Your task to perform on an android device: Search for razer naga on costco, select the first entry, and add it to the cart. Image 0: 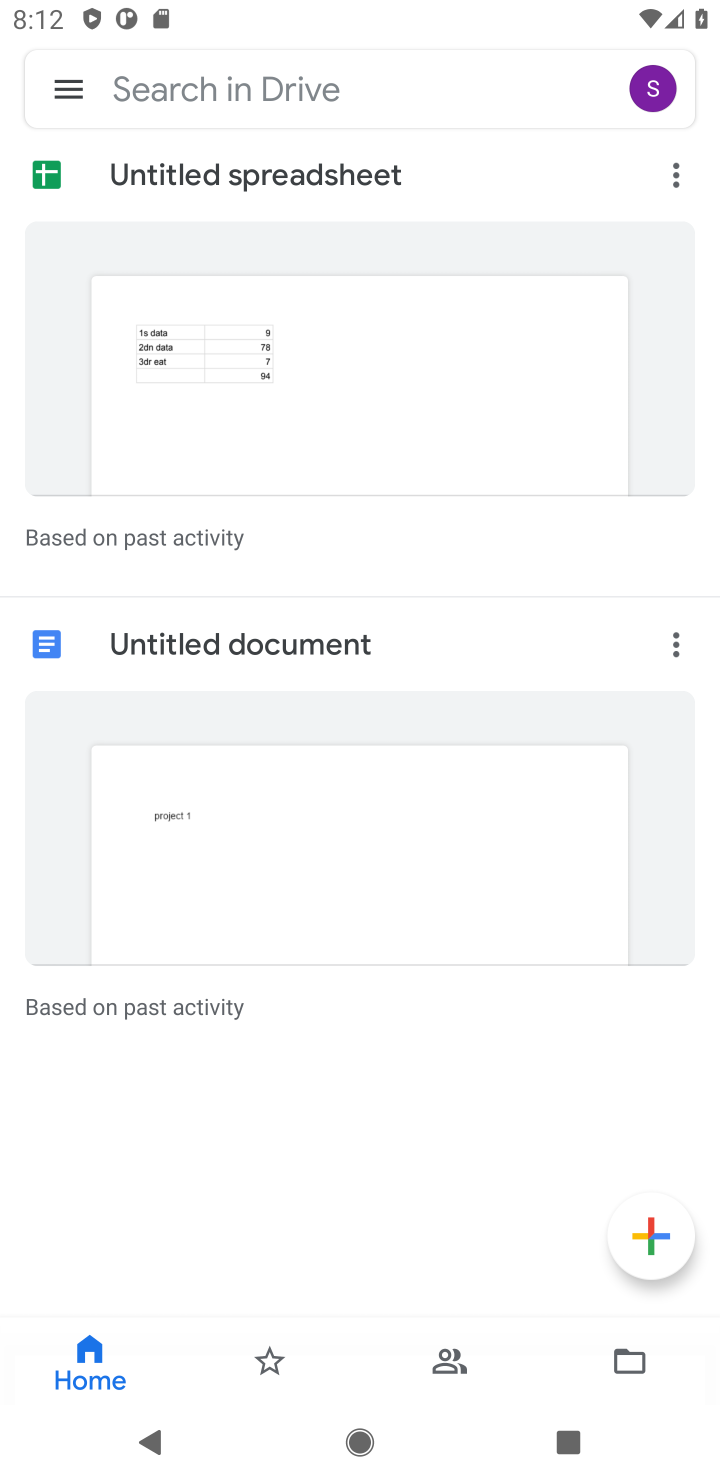
Step 0: press home button
Your task to perform on an android device: Search for razer naga on costco, select the first entry, and add it to the cart. Image 1: 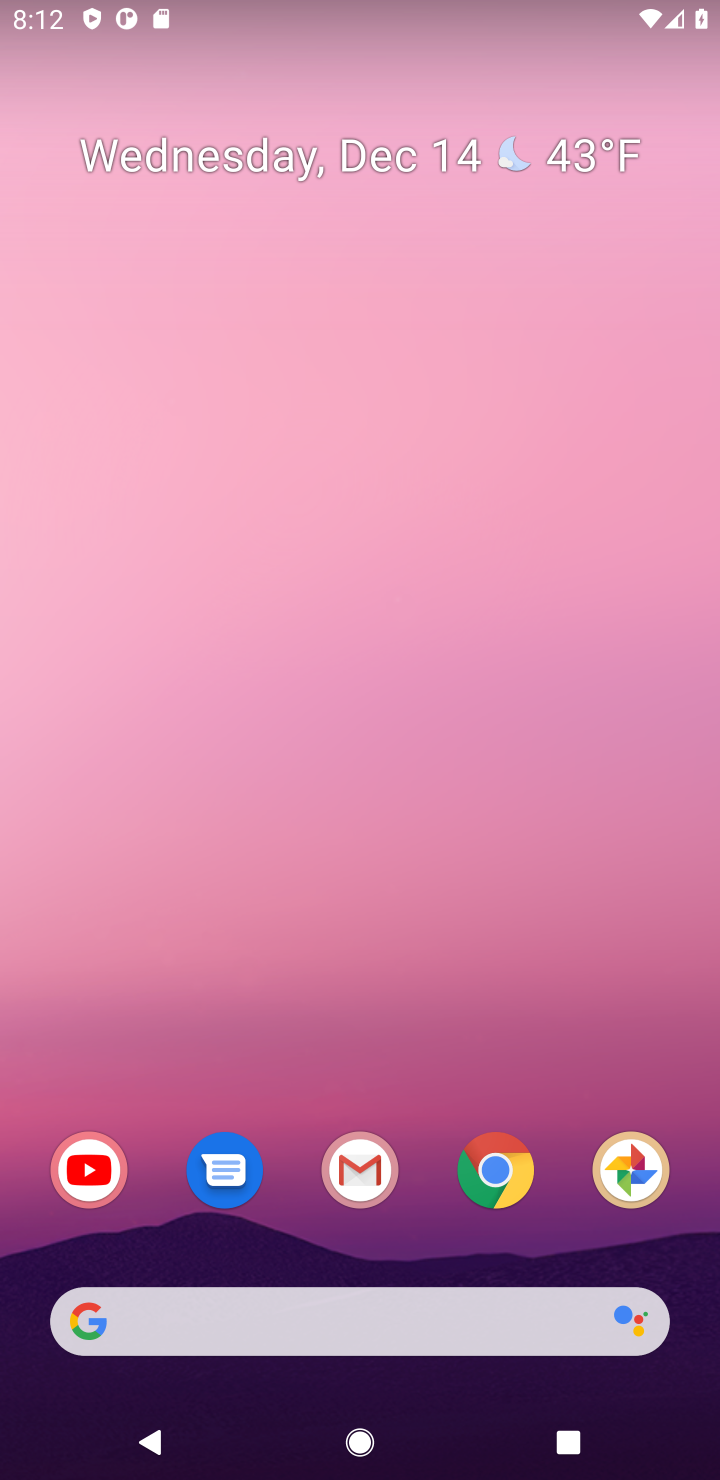
Step 1: click (486, 1174)
Your task to perform on an android device: Search for razer naga on costco, select the first entry, and add it to the cart. Image 2: 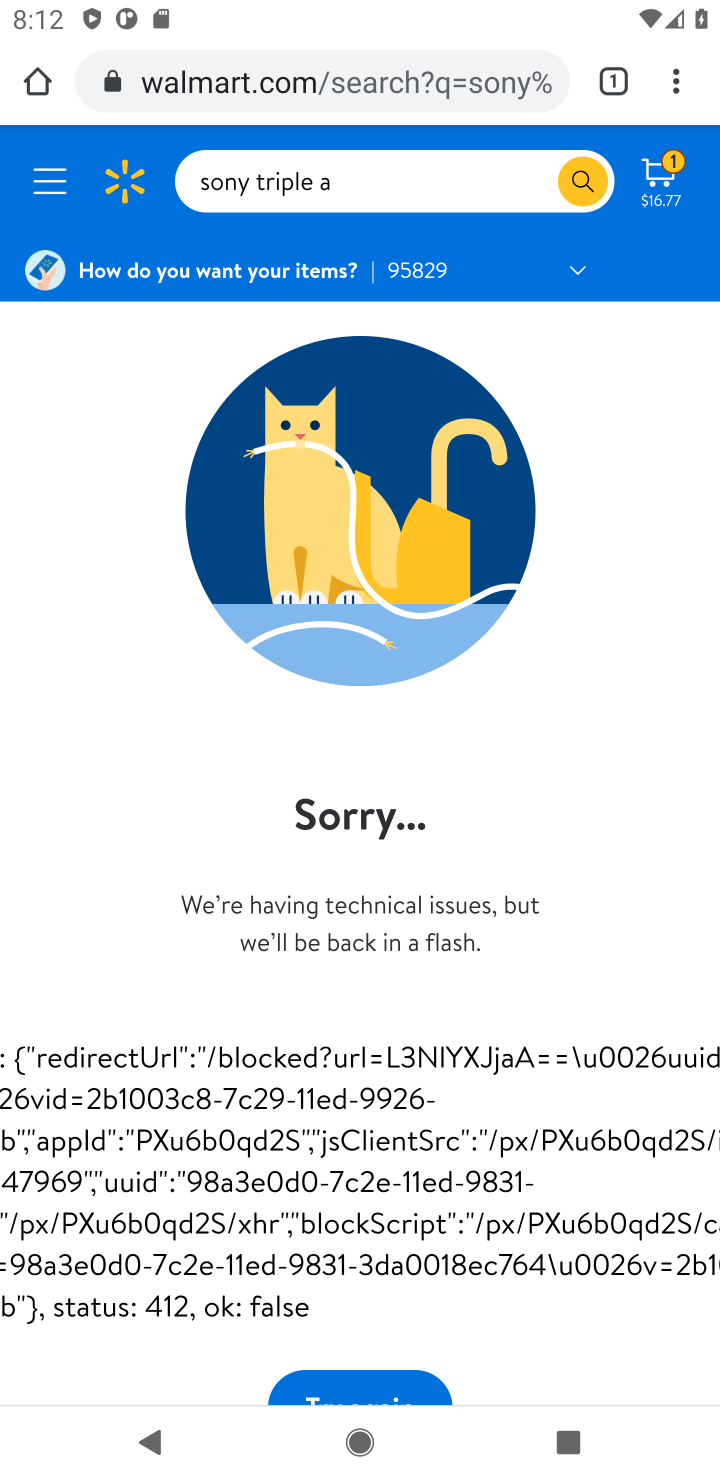
Step 2: click (338, 72)
Your task to perform on an android device: Search for razer naga on costco, select the first entry, and add it to the cart. Image 3: 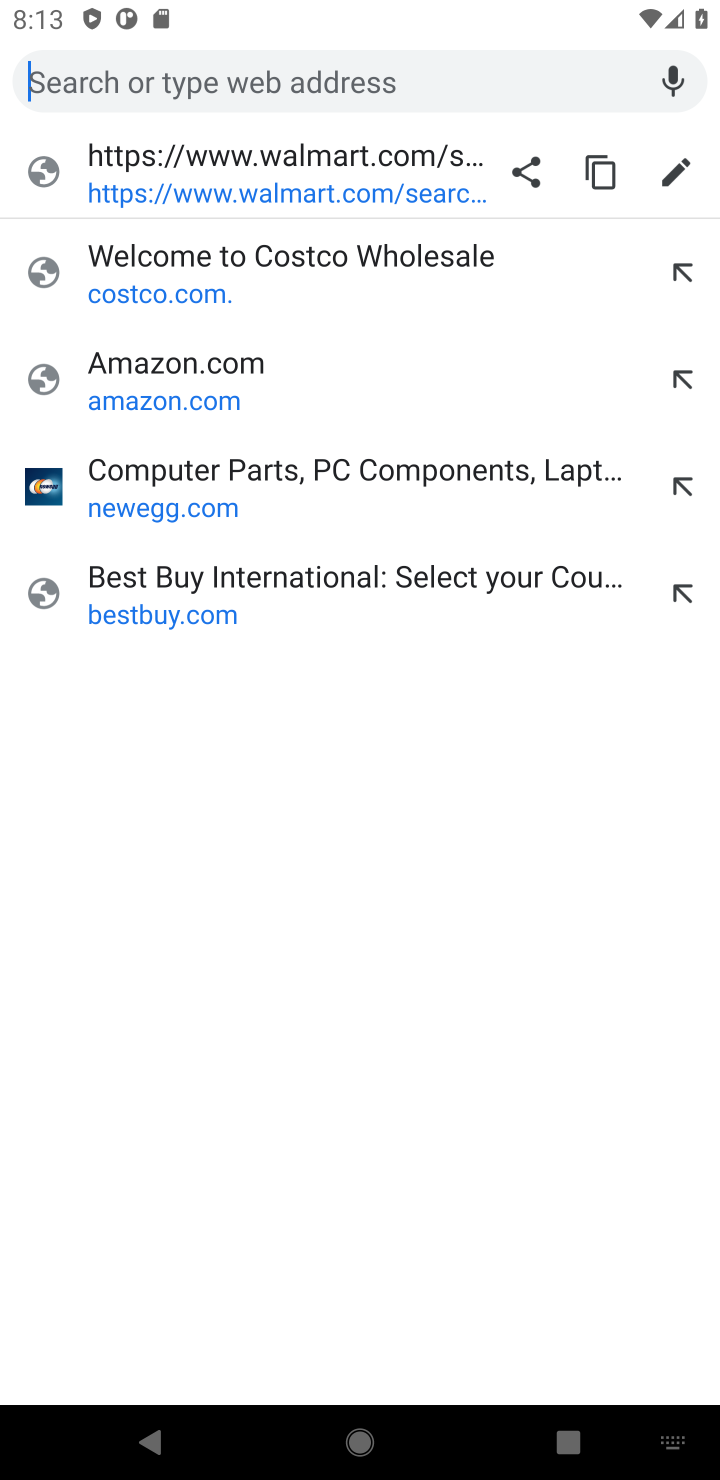
Step 3: click (425, 262)
Your task to perform on an android device: Search for razer naga on costco, select the first entry, and add it to the cart. Image 4: 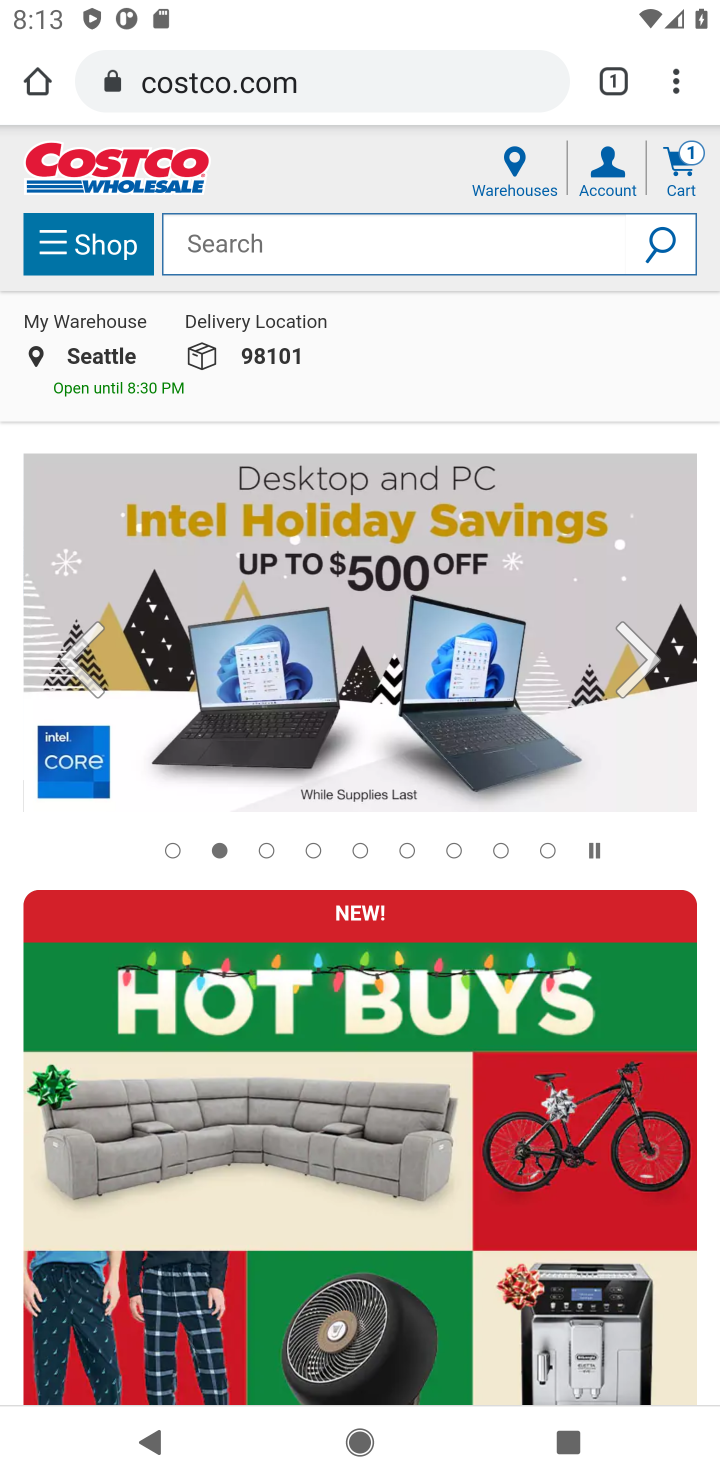
Step 4: click (425, 262)
Your task to perform on an android device: Search for razer naga on costco, select the first entry, and add it to the cart. Image 5: 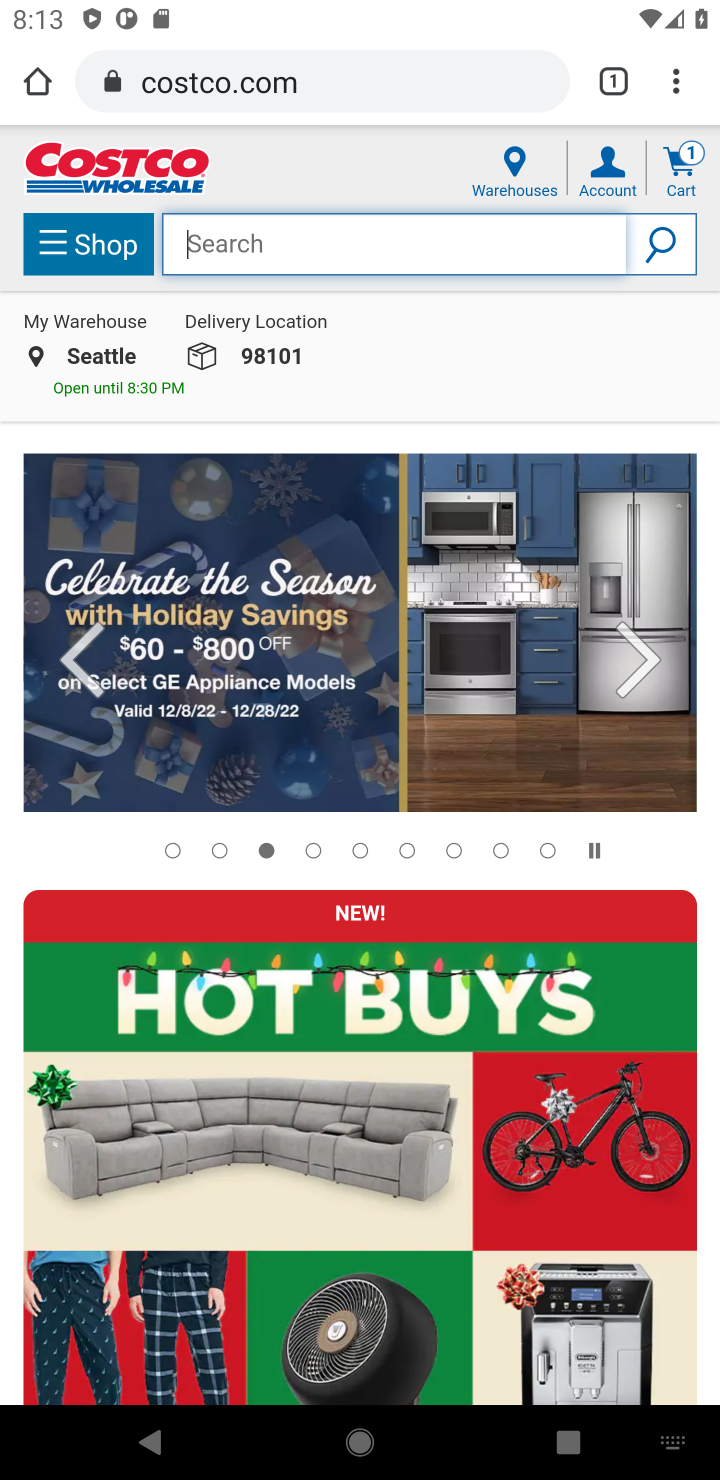
Step 5: type "RAZER NAGA"
Your task to perform on an android device: Search for razer naga on costco, select the first entry, and add it to the cart. Image 6: 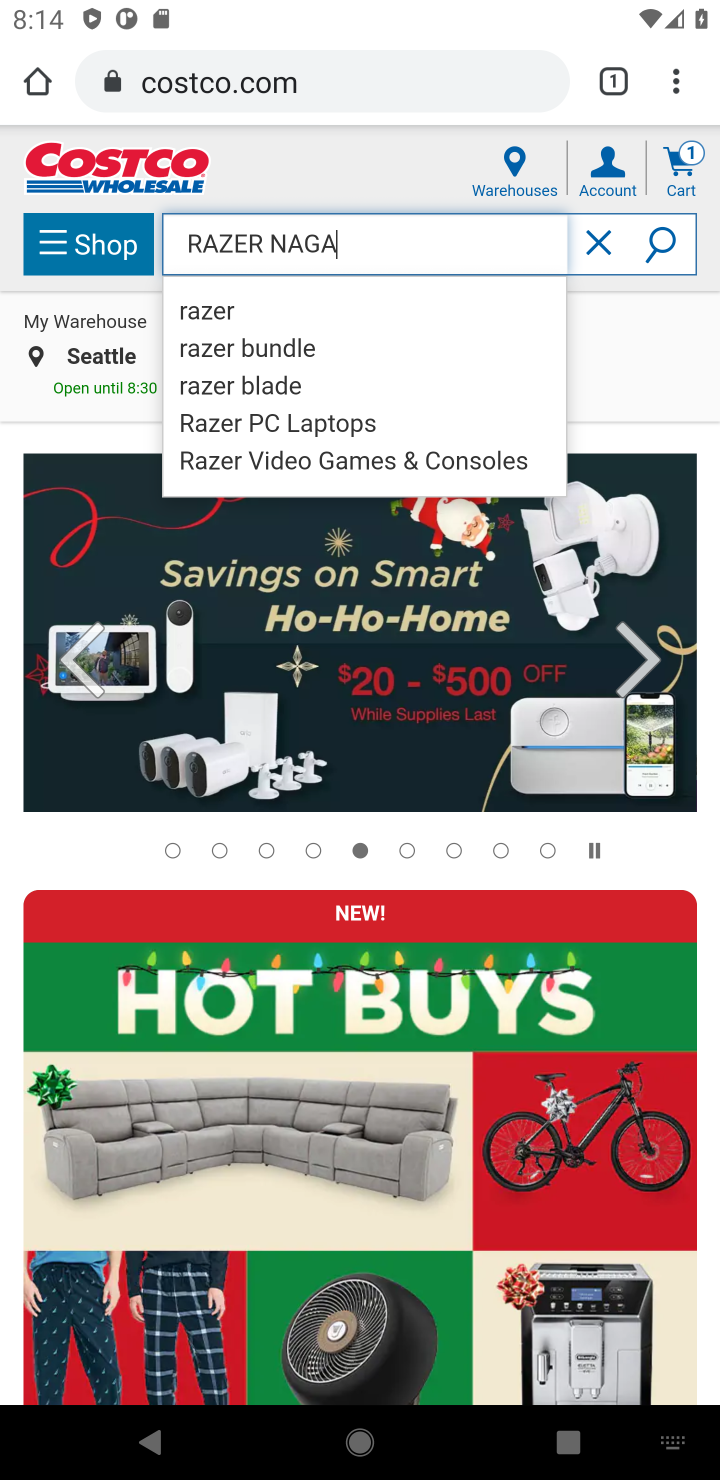
Step 6: click (217, 318)
Your task to perform on an android device: Search for razer naga on costco, select the first entry, and add it to the cart. Image 7: 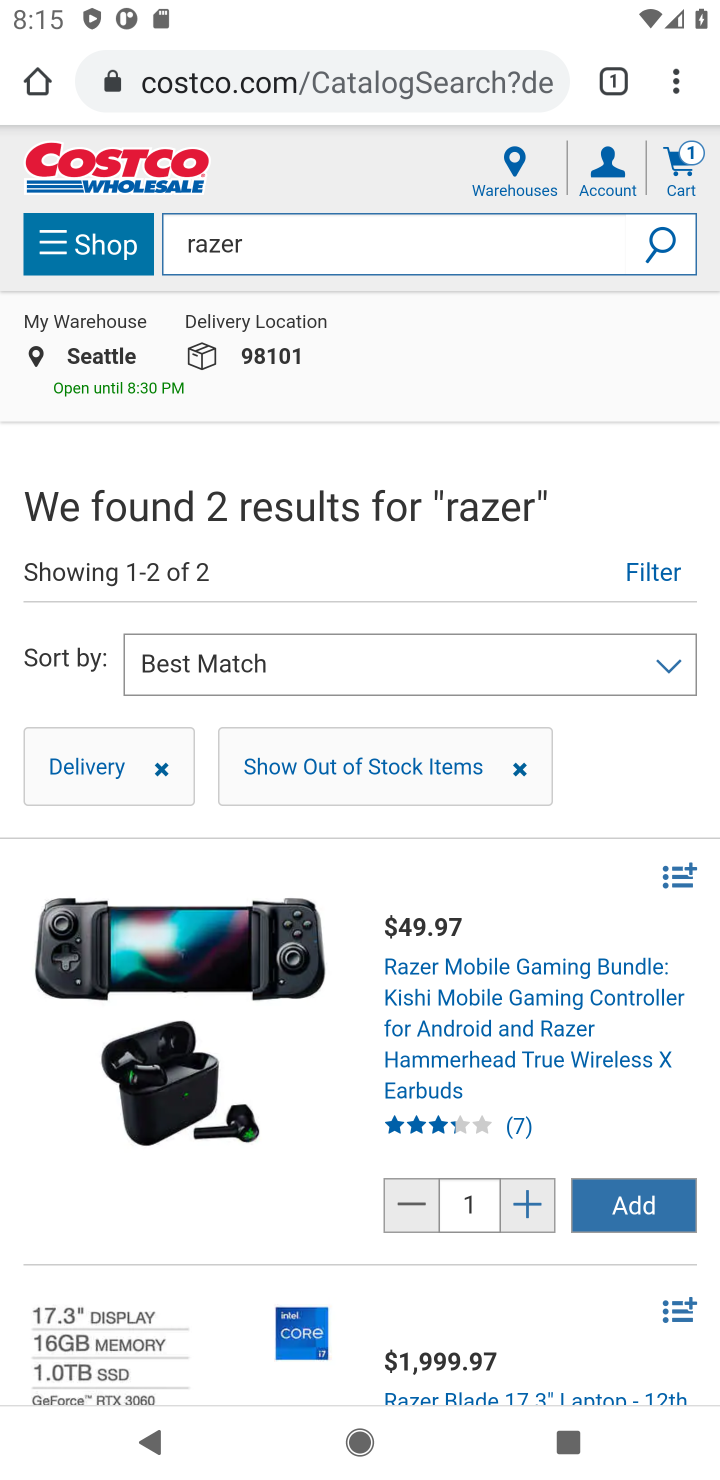
Step 7: click (631, 1197)
Your task to perform on an android device: Search for razer naga on costco, select the first entry, and add it to the cart. Image 8: 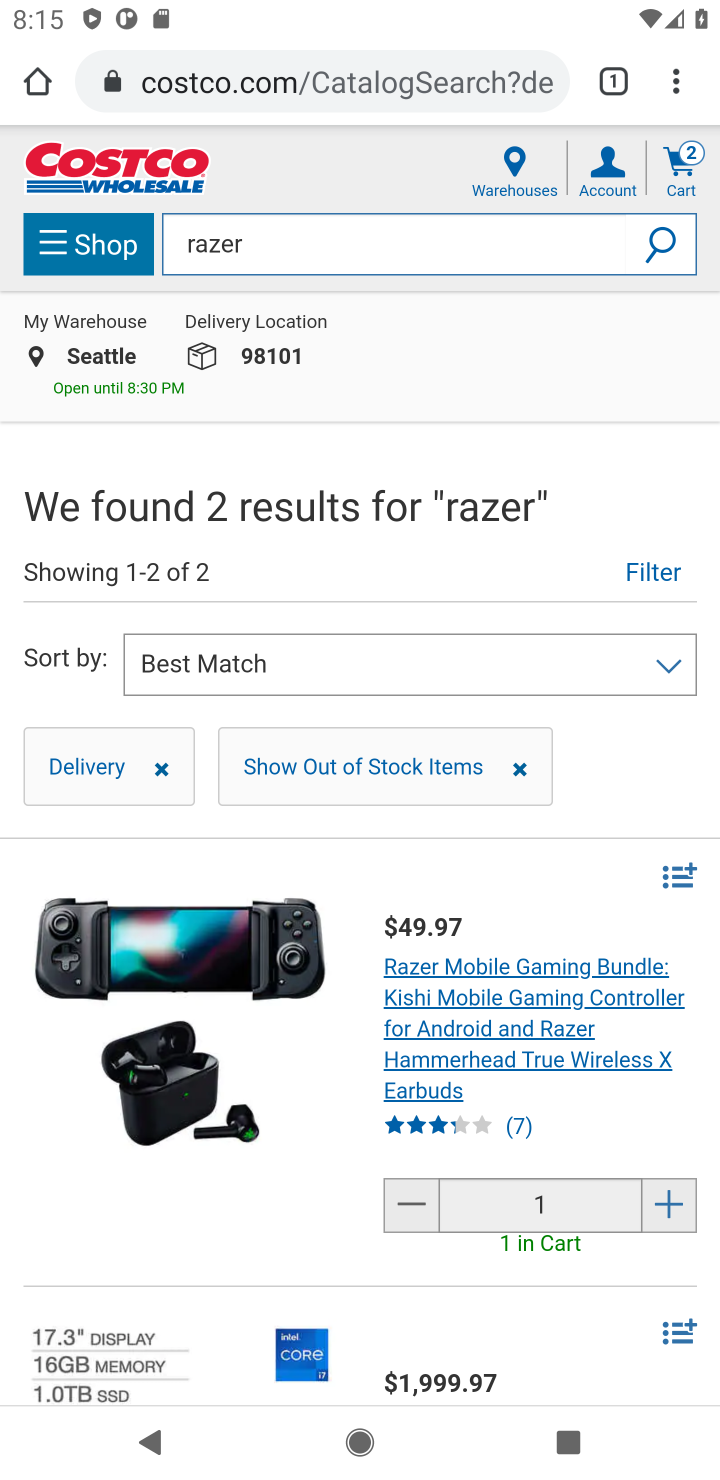
Step 8: task complete